Your task to perform on an android device: find snoozed emails in the gmail app Image 0: 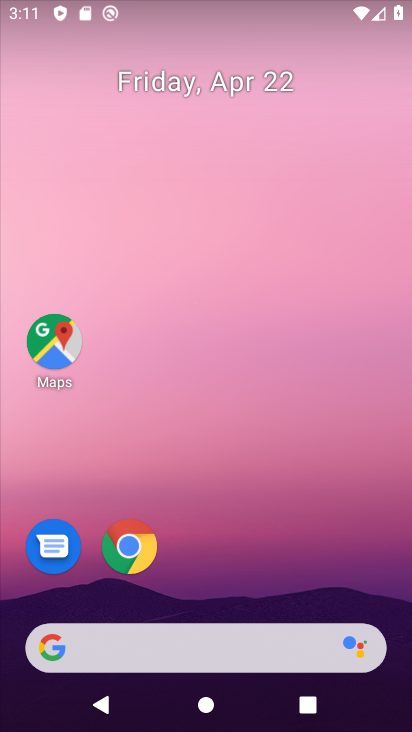
Step 0: drag from (327, 350) to (342, 60)
Your task to perform on an android device: find snoozed emails in the gmail app Image 1: 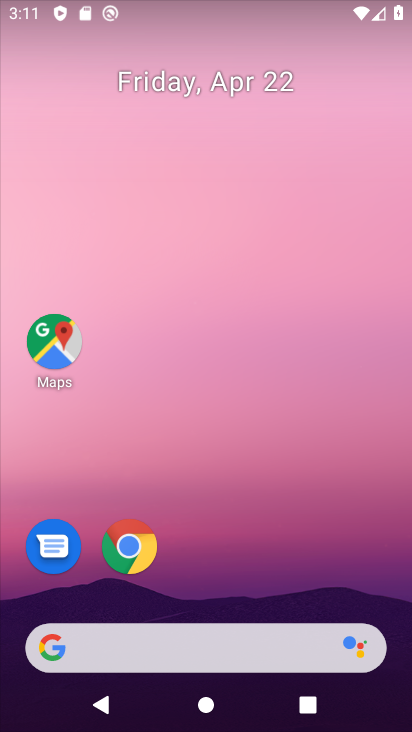
Step 1: drag from (275, 435) to (307, 120)
Your task to perform on an android device: find snoozed emails in the gmail app Image 2: 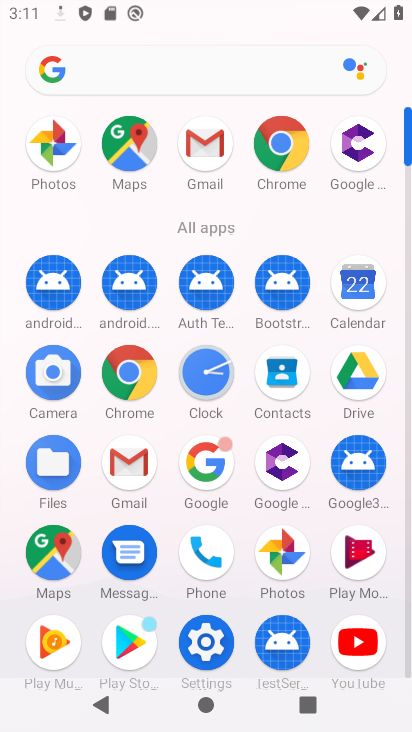
Step 2: click (201, 153)
Your task to perform on an android device: find snoozed emails in the gmail app Image 3: 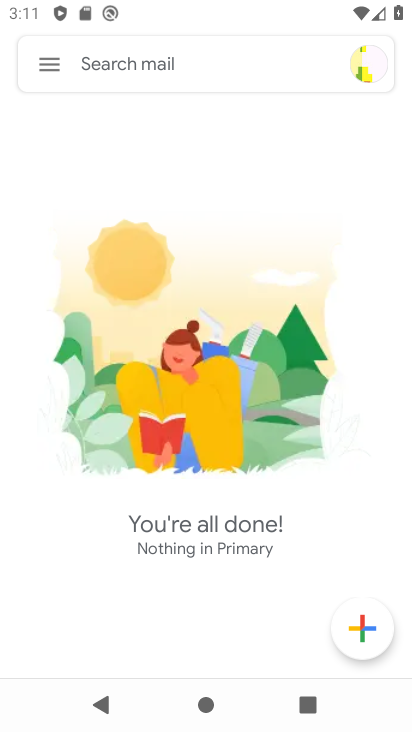
Step 3: click (47, 62)
Your task to perform on an android device: find snoozed emails in the gmail app Image 4: 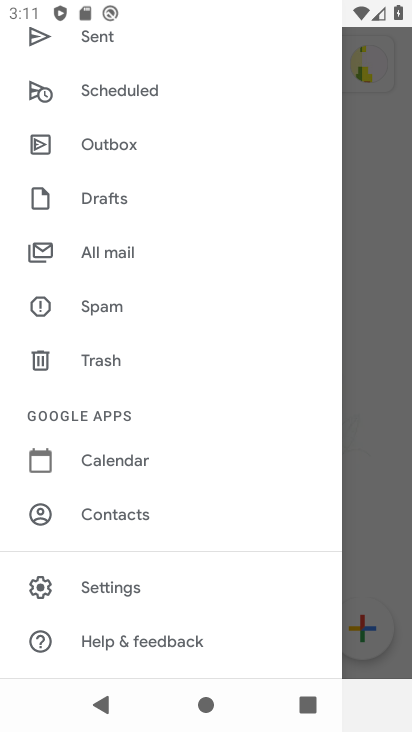
Step 4: drag from (165, 400) to (127, 621)
Your task to perform on an android device: find snoozed emails in the gmail app Image 5: 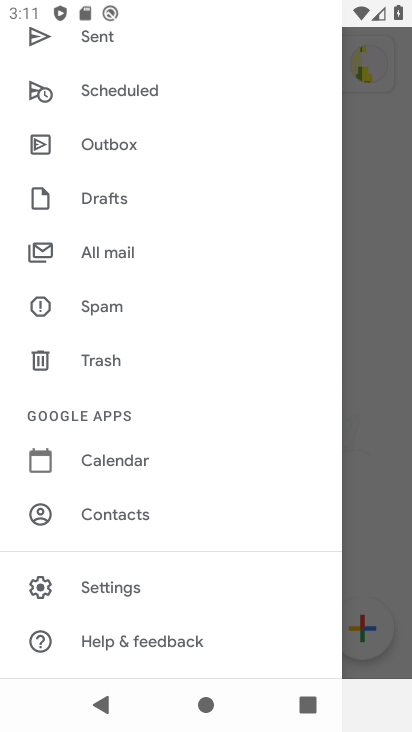
Step 5: drag from (155, 148) to (137, 498)
Your task to perform on an android device: find snoozed emails in the gmail app Image 6: 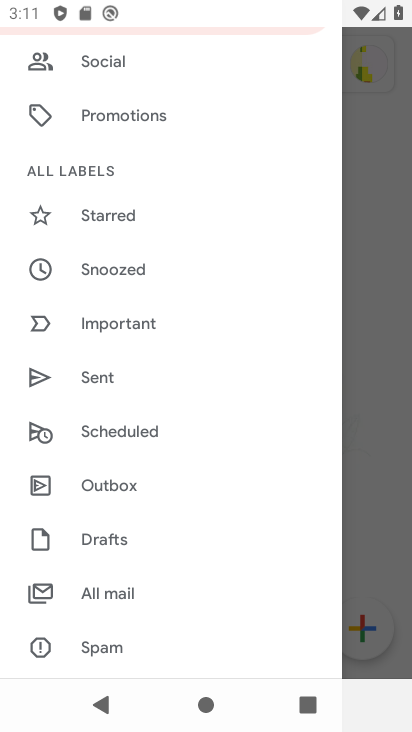
Step 6: click (130, 275)
Your task to perform on an android device: find snoozed emails in the gmail app Image 7: 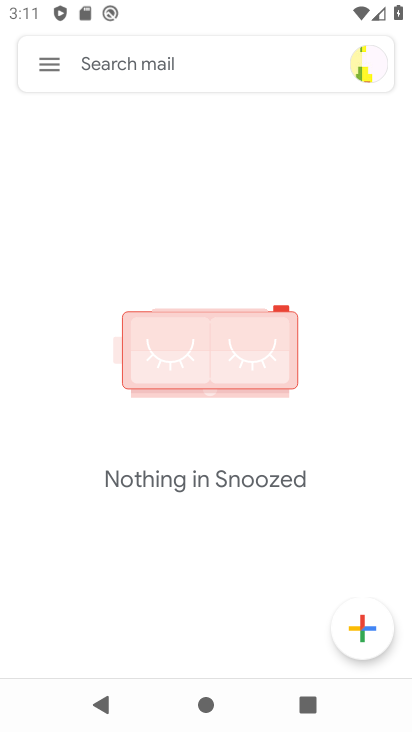
Step 7: task complete